Your task to perform on an android device: find which apps use the phone's location Image 0: 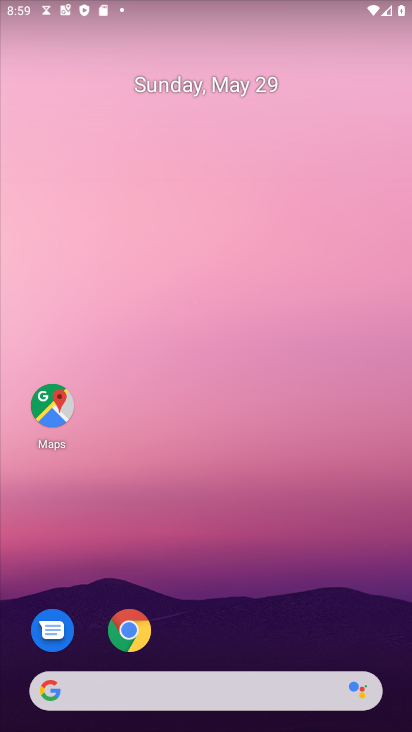
Step 0: drag from (222, 637) to (256, 166)
Your task to perform on an android device: find which apps use the phone's location Image 1: 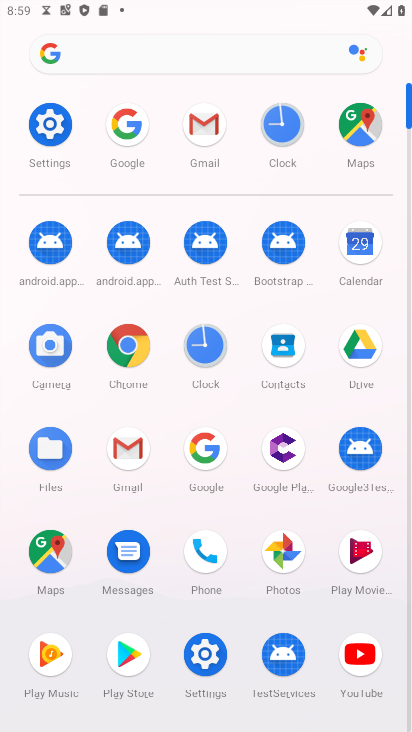
Step 1: click (57, 121)
Your task to perform on an android device: find which apps use the phone's location Image 2: 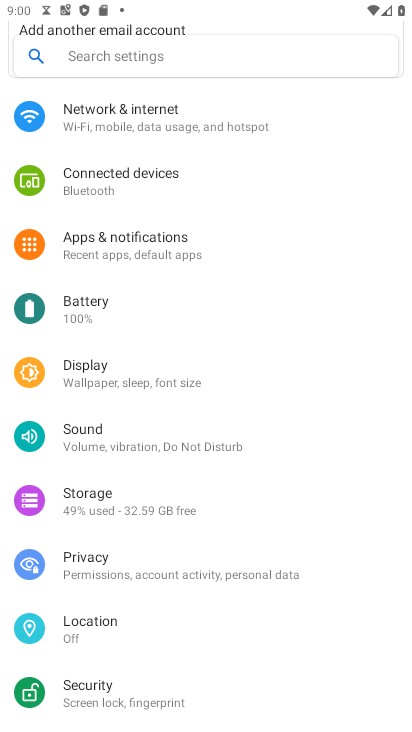
Step 2: click (98, 630)
Your task to perform on an android device: find which apps use the phone's location Image 3: 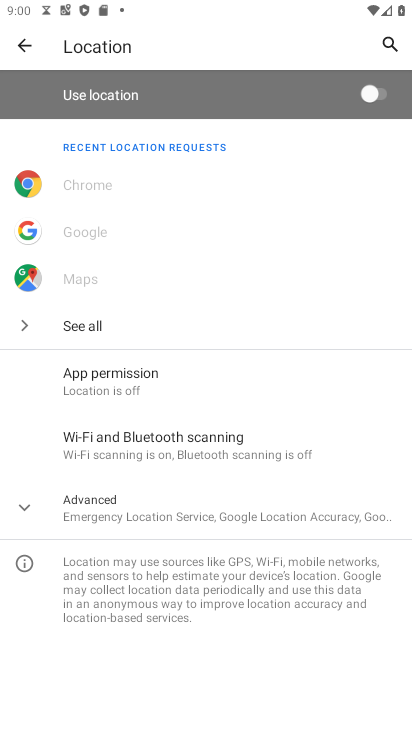
Step 3: click (133, 381)
Your task to perform on an android device: find which apps use the phone's location Image 4: 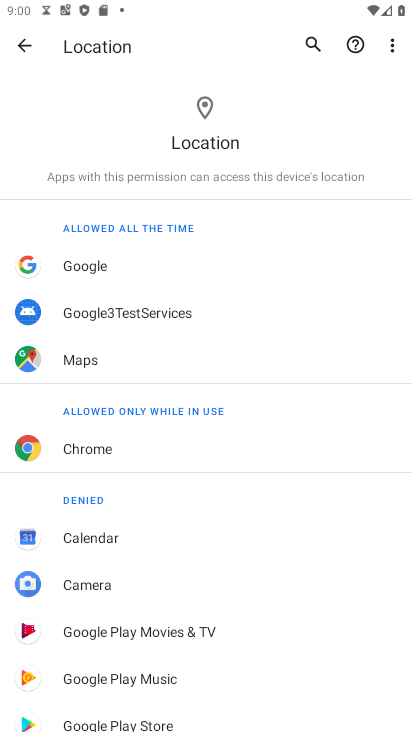
Step 4: task complete